Your task to perform on an android device: turn off location Image 0: 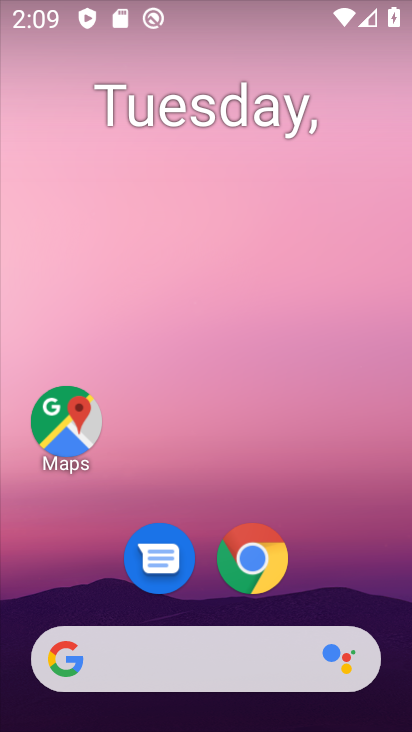
Step 0: drag from (141, 578) to (270, 72)
Your task to perform on an android device: turn off location Image 1: 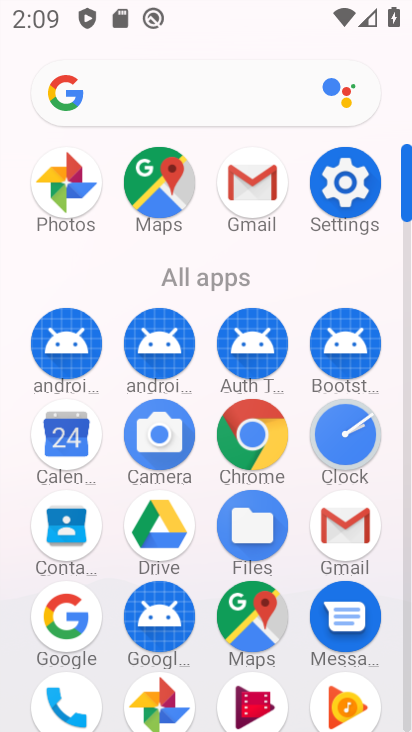
Step 1: drag from (106, 589) to (224, 290)
Your task to perform on an android device: turn off location Image 2: 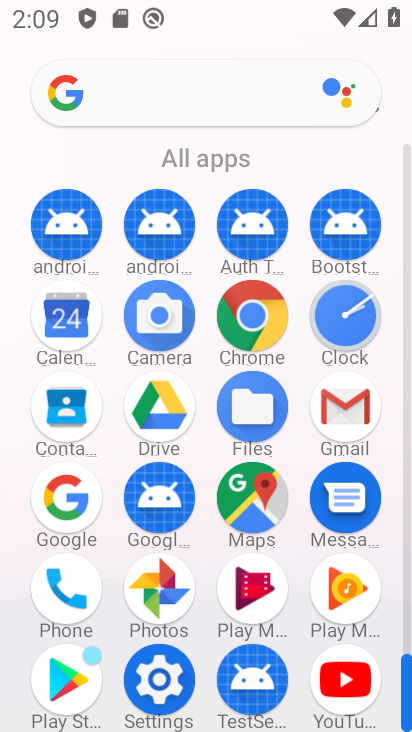
Step 2: click (167, 691)
Your task to perform on an android device: turn off location Image 3: 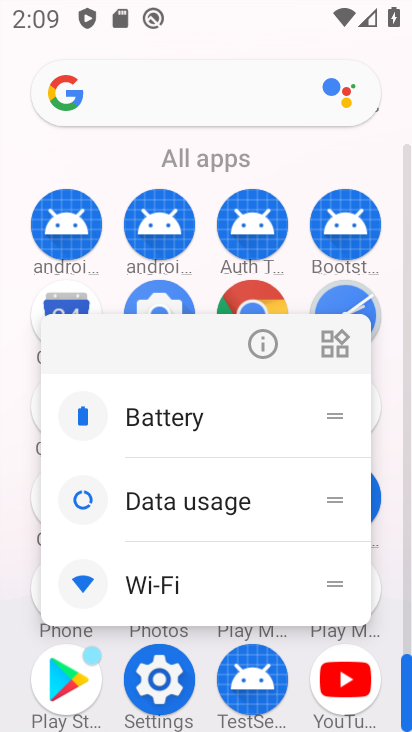
Step 3: click (160, 683)
Your task to perform on an android device: turn off location Image 4: 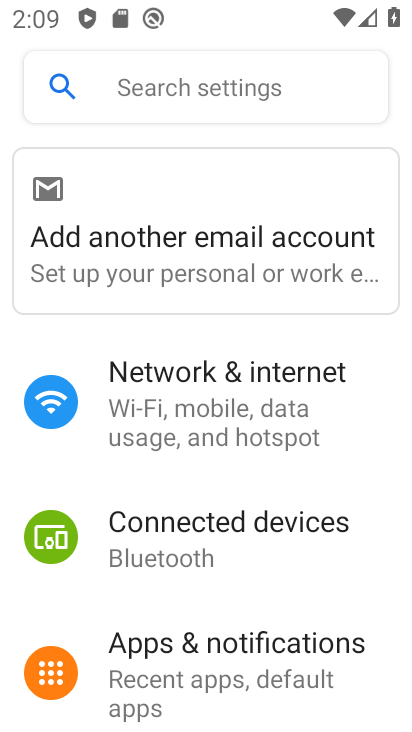
Step 4: drag from (169, 643) to (323, 175)
Your task to perform on an android device: turn off location Image 5: 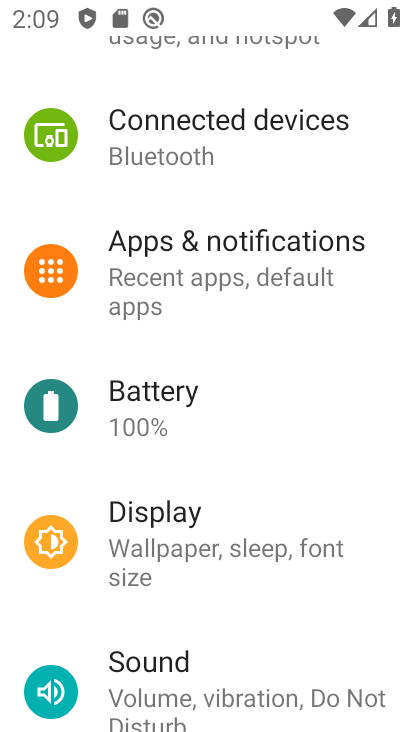
Step 5: drag from (188, 642) to (297, 256)
Your task to perform on an android device: turn off location Image 6: 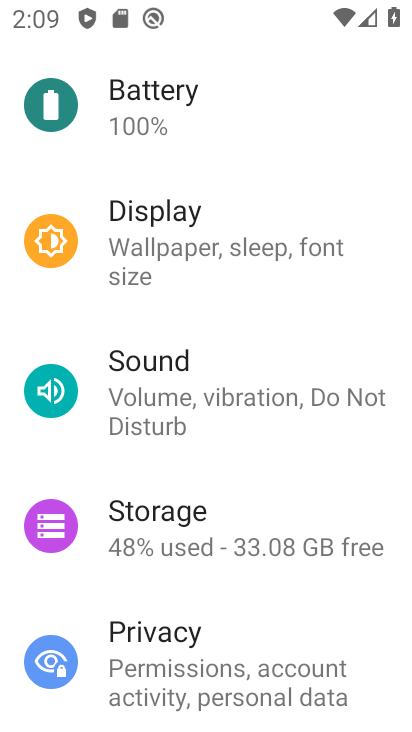
Step 6: drag from (167, 627) to (269, 239)
Your task to perform on an android device: turn off location Image 7: 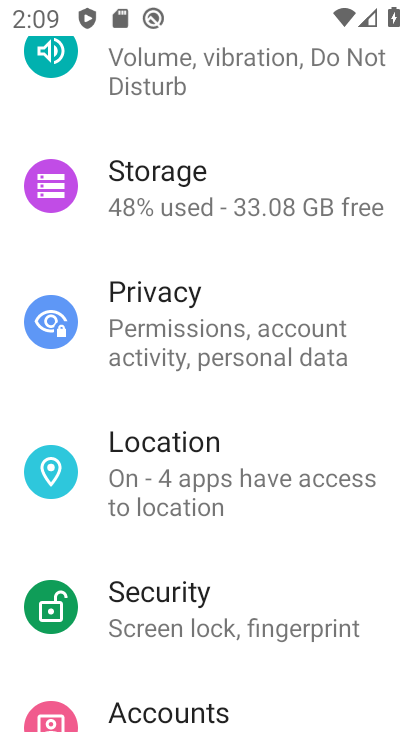
Step 7: click (188, 466)
Your task to perform on an android device: turn off location Image 8: 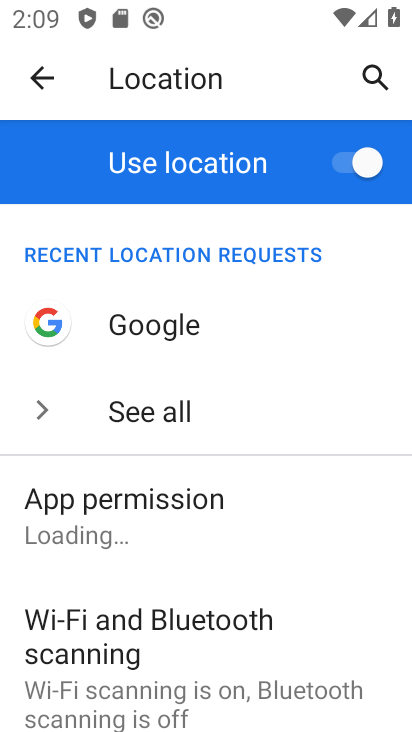
Step 8: click (348, 155)
Your task to perform on an android device: turn off location Image 9: 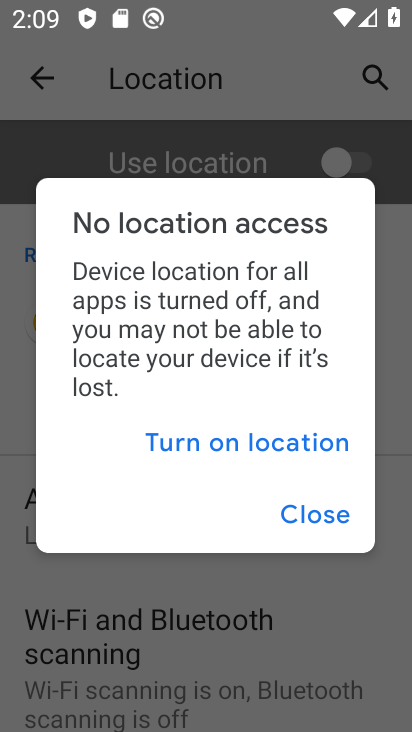
Step 9: click (319, 518)
Your task to perform on an android device: turn off location Image 10: 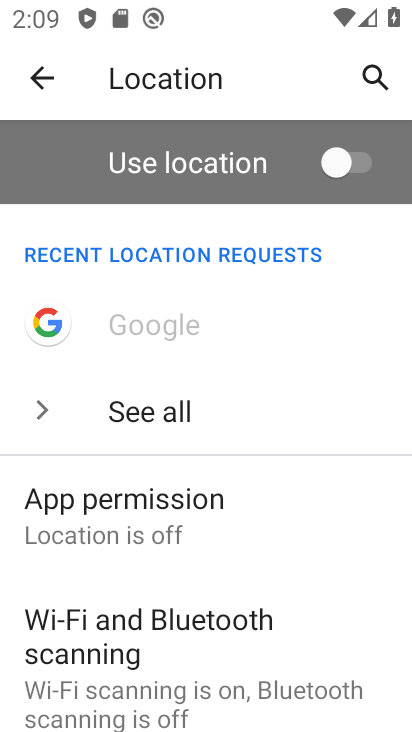
Step 10: task complete